Your task to perform on an android device: find snoozed emails in the gmail app Image 0: 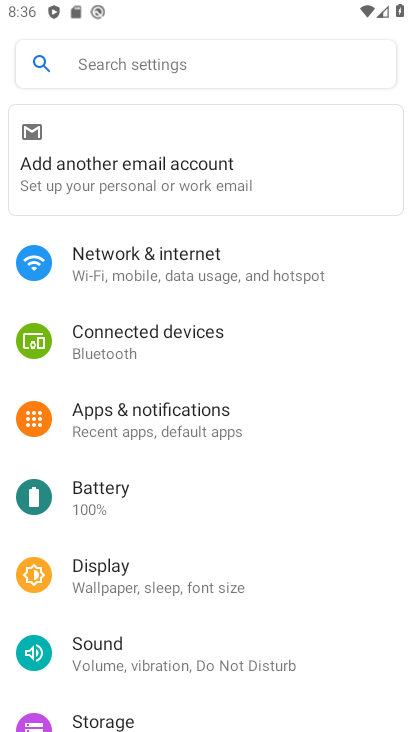
Step 0: drag from (160, 687) to (128, 413)
Your task to perform on an android device: find snoozed emails in the gmail app Image 1: 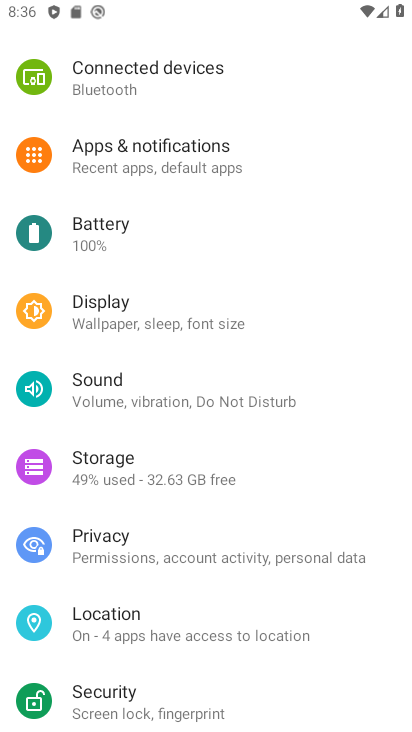
Step 1: press home button
Your task to perform on an android device: find snoozed emails in the gmail app Image 2: 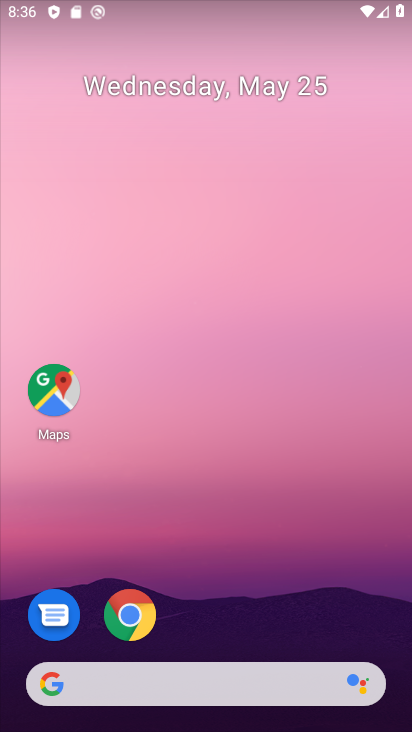
Step 2: drag from (193, 656) to (161, 169)
Your task to perform on an android device: find snoozed emails in the gmail app Image 3: 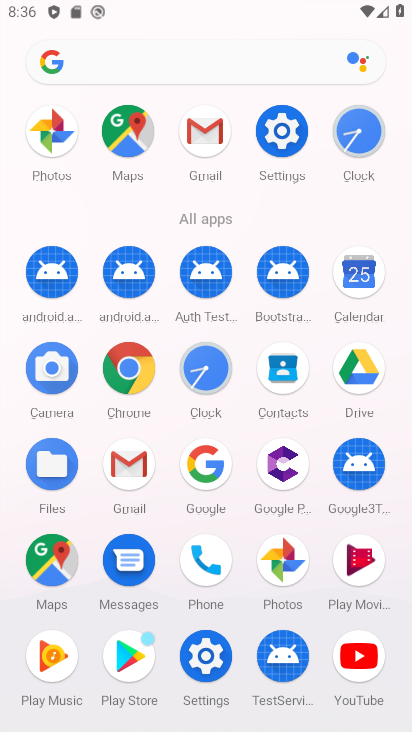
Step 3: click (144, 463)
Your task to perform on an android device: find snoozed emails in the gmail app Image 4: 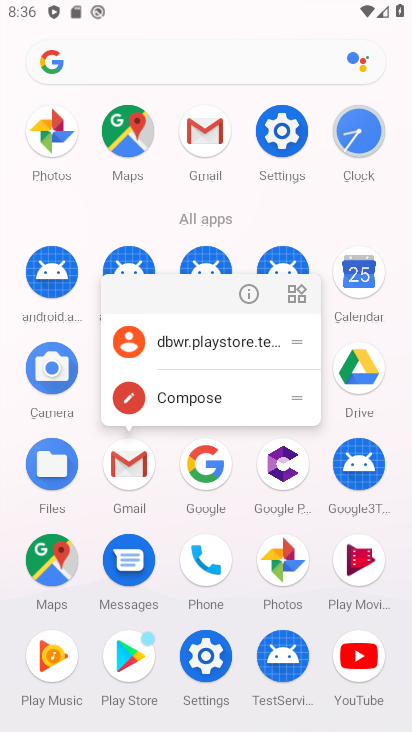
Step 4: click (144, 463)
Your task to perform on an android device: find snoozed emails in the gmail app Image 5: 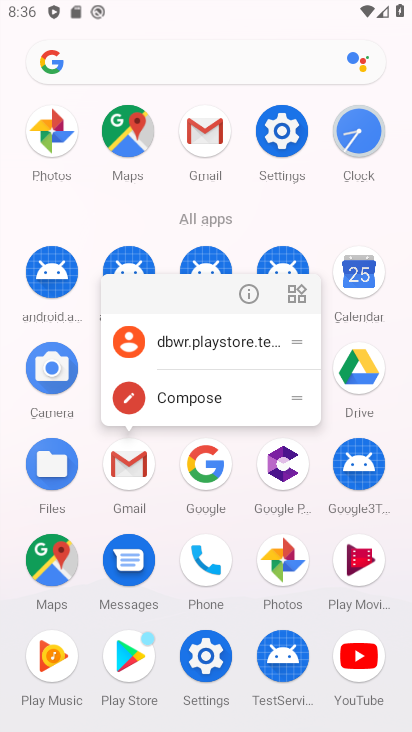
Step 5: click (144, 463)
Your task to perform on an android device: find snoozed emails in the gmail app Image 6: 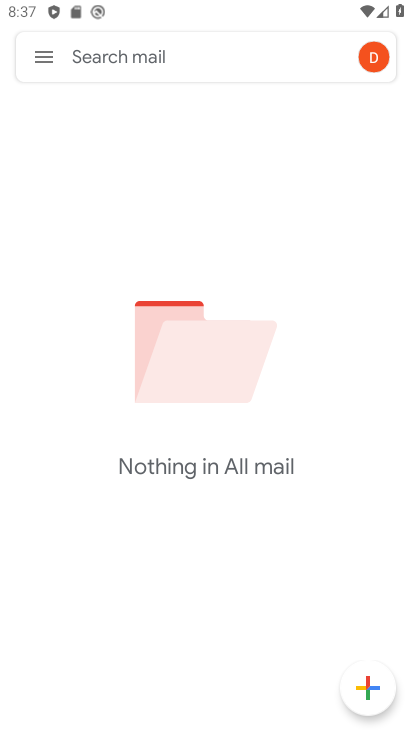
Step 6: click (41, 57)
Your task to perform on an android device: find snoozed emails in the gmail app Image 7: 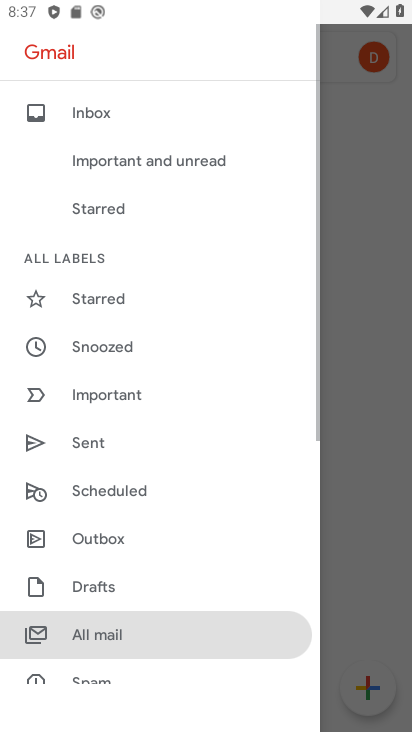
Step 7: click (130, 335)
Your task to perform on an android device: find snoozed emails in the gmail app Image 8: 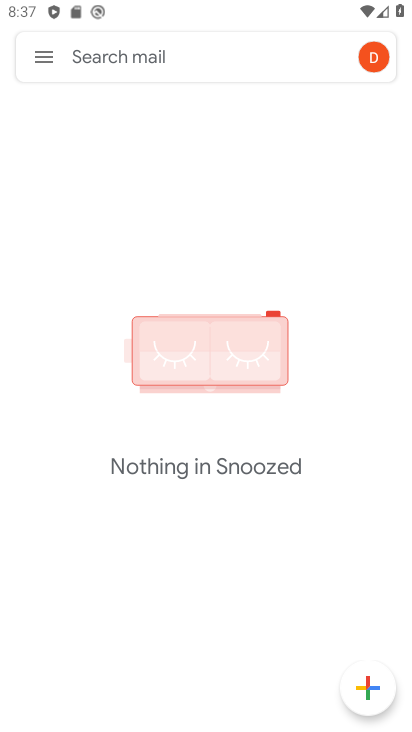
Step 8: task complete